Your task to perform on an android device: Open Google Chrome and click the shortcut for Amazon.com Image 0: 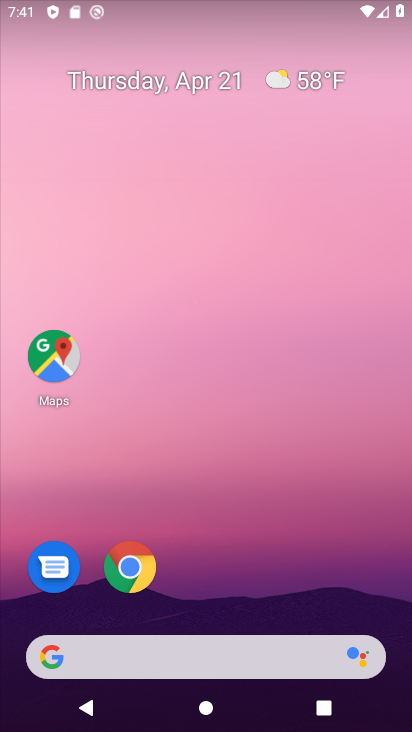
Step 0: click (130, 566)
Your task to perform on an android device: Open Google Chrome and click the shortcut for Amazon.com Image 1: 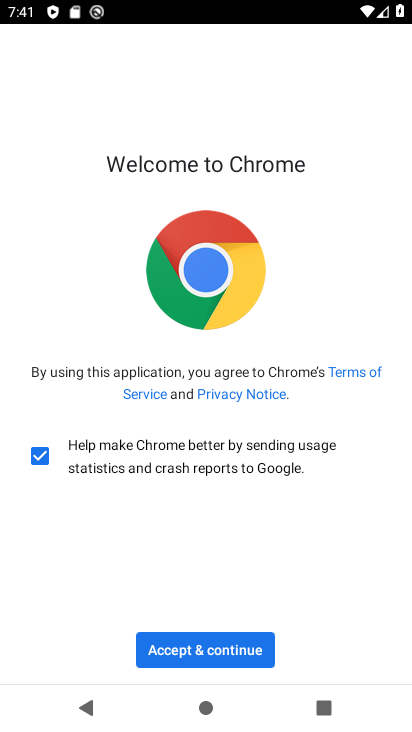
Step 1: click (180, 638)
Your task to perform on an android device: Open Google Chrome and click the shortcut for Amazon.com Image 2: 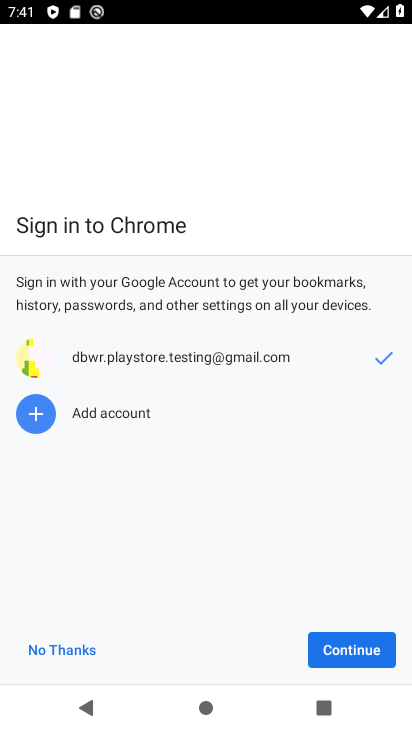
Step 2: click (349, 654)
Your task to perform on an android device: Open Google Chrome and click the shortcut for Amazon.com Image 3: 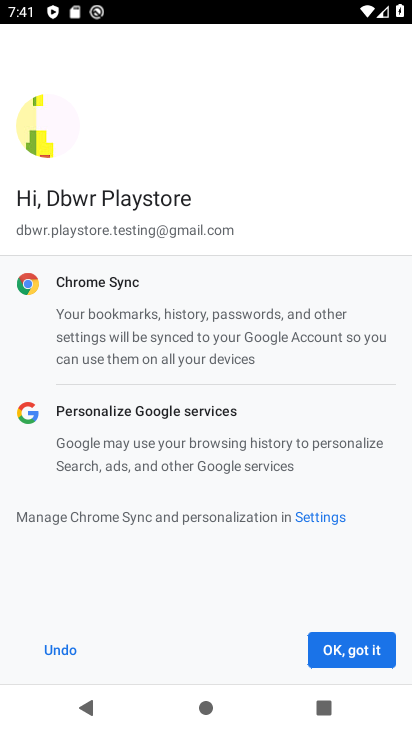
Step 3: click (349, 654)
Your task to perform on an android device: Open Google Chrome and click the shortcut for Amazon.com Image 4: 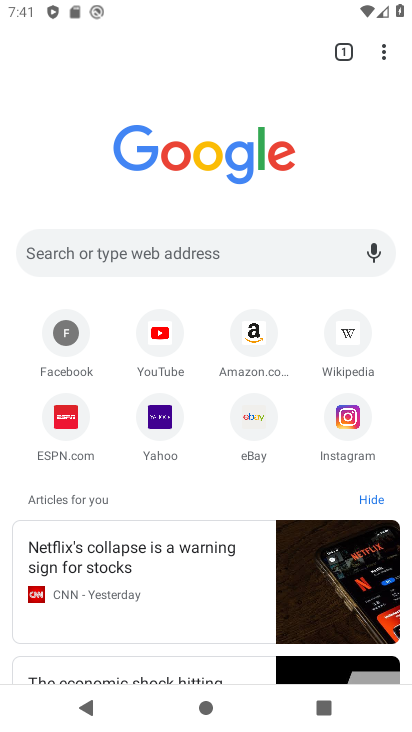
Step 4: click (252, 339)
Your task to perform on an android device: Open Google Chrome and click the shortcut for Amazon.com Image 5: 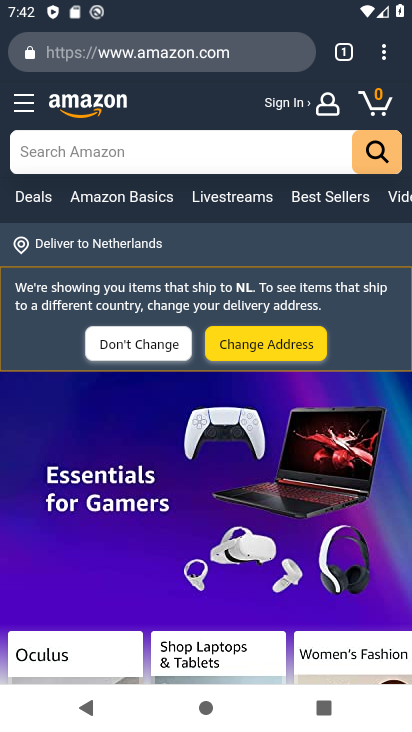
Step 5: click (393, 53)
Your task to perform on an android device: Open Google Chrome and click the shortcut for Amazon.com Image 6: 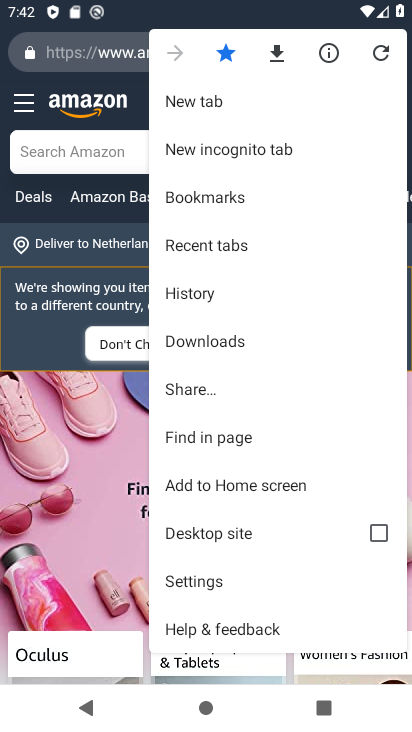
Step 6: click (271, 485)
Your task to perform on an android device: Open Google Chrome and click the shortcut for Amazon.com Image 7: 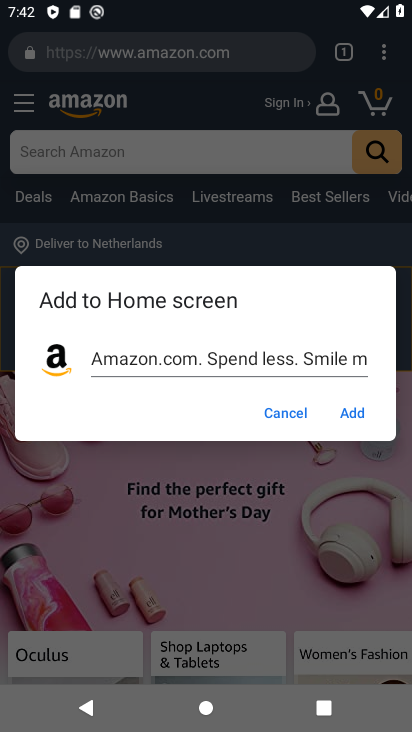
Step 7: click (361, 417)
Your task to perform on an android device: Open Google Chrome and click the shortcut for Amazon.com Image 8: 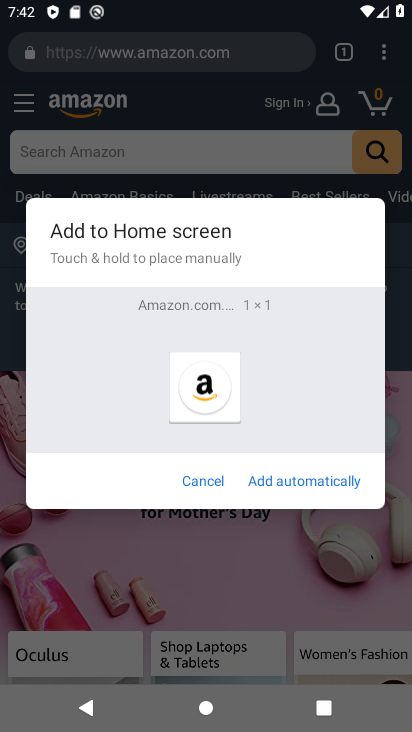
Step 8: click (322, 479)
Your task to perform on an android device: Open Google Chrome and click the shortcut for Amazon.com Image 9: 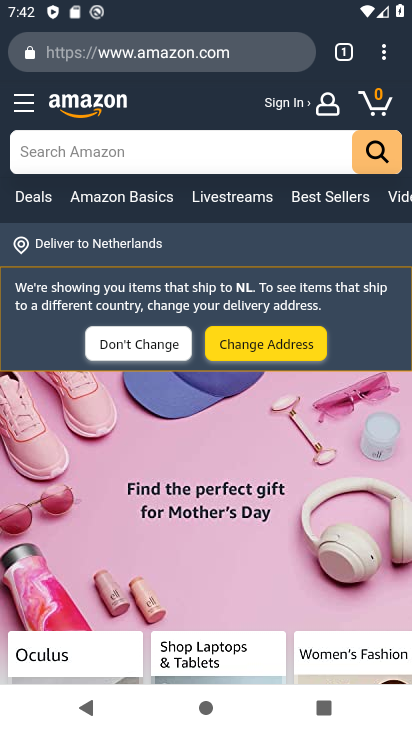
Step 9: task complete